Your task to perform on an android device: turn off notifications settings in the gmail app Image 0: 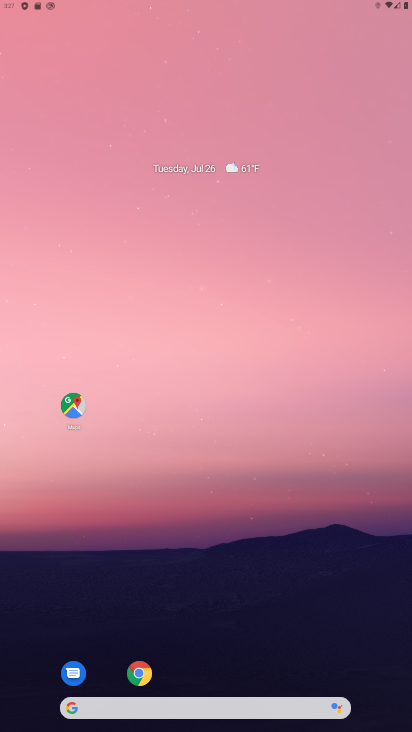
Step 0: press home button
Your task to perform on an android device: turn off notifications settings in the gmail app Image 1: 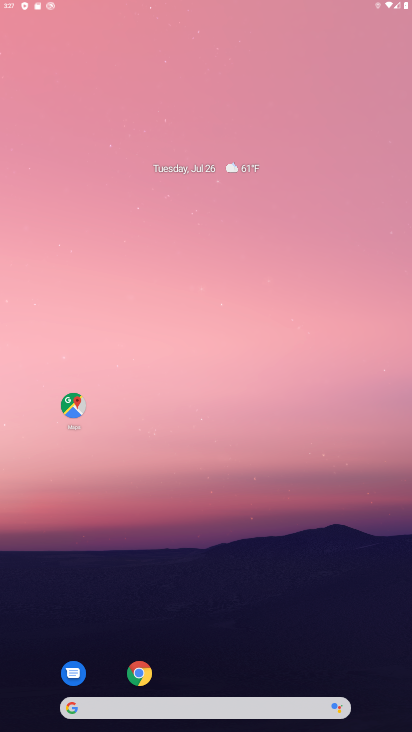
Step 1: drag from (213, 680) to (244, 0)
Your task to perform on an android device: turn off notifications settings in the gmail app Image 2: 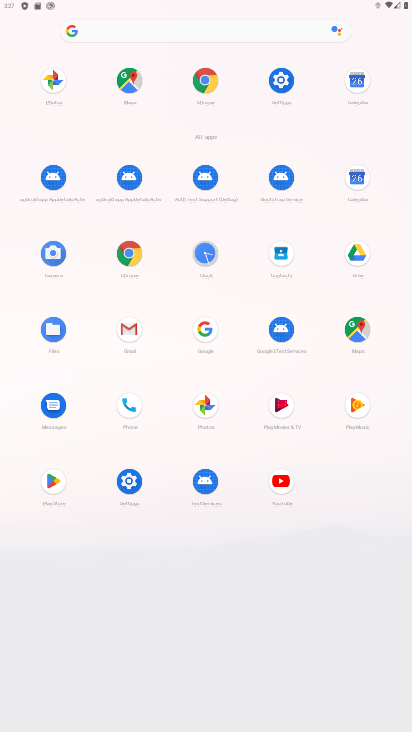
Step 2: click (127, 326)
Your task to perform on an android device: turn off notifications settings in the gmail app Image 3: 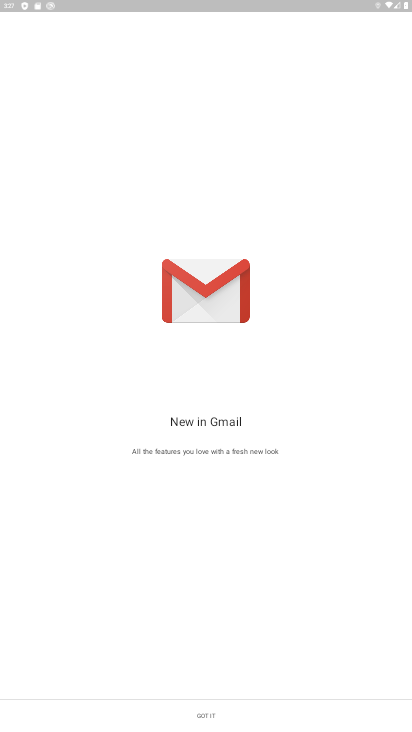
Step 3: click (208, 716)
Your task to perform on an android device: turn off notifications settings in the gmail app Image 4: 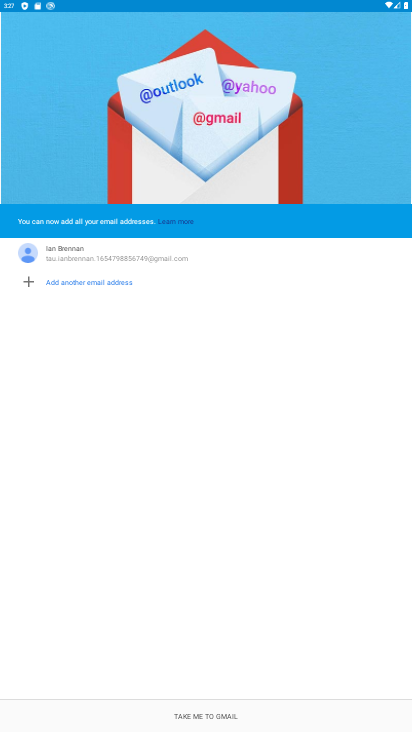
Step 4: click (208, 716)
Your task to perform on an android device: turn off notifications settings in the gmail app Image 5: 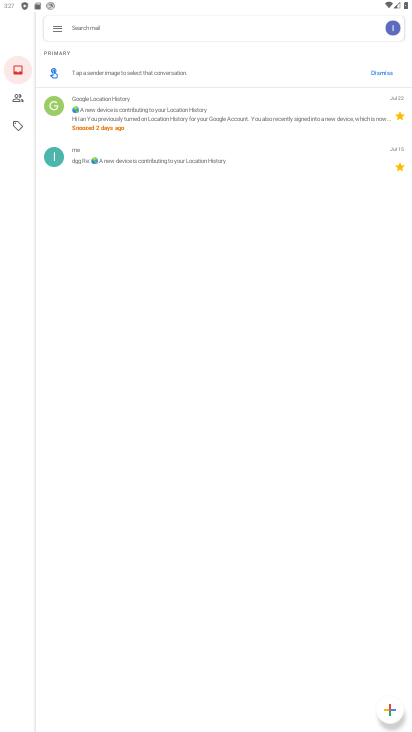
Step 5: click (58, 25)
Your task to perform on an android device: turn off notifications settings in the gmail app Image 6: 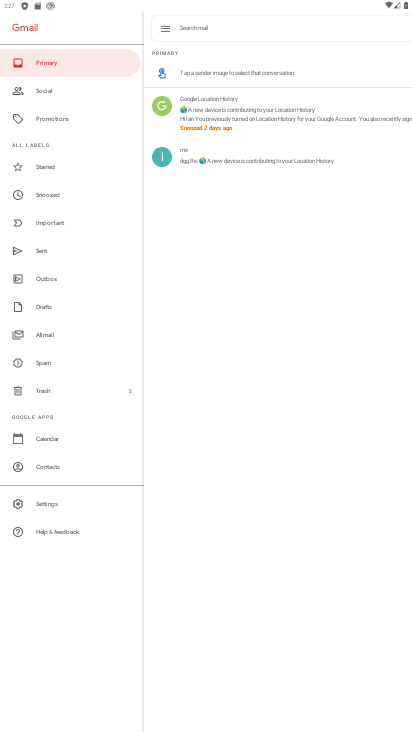
Step 6: click (63, 502)
Your task to perform on an android device: turn off notifications settings in the gmail app Image 7: 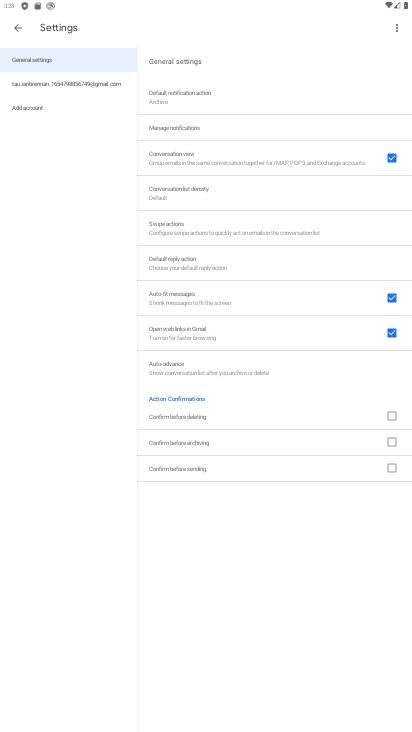
Step 7: click (195, 127)
Your task to perform on an android device: turn off notifications settings in the gmail app Image 8: 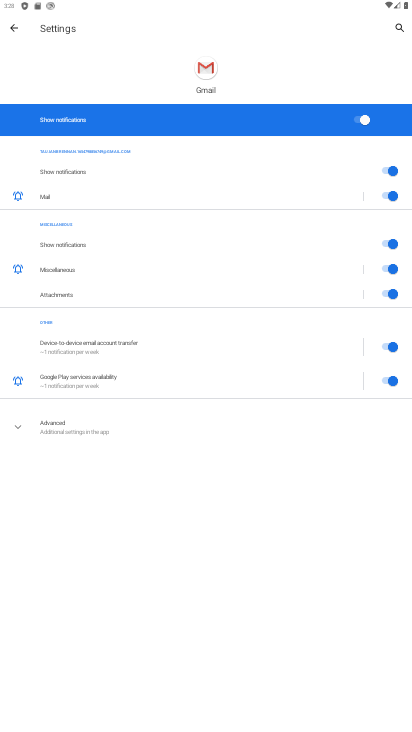
Step 8: click (358, 117)
Your task to perform on an android device: turn off notifications settings in the gmail app Image 9: 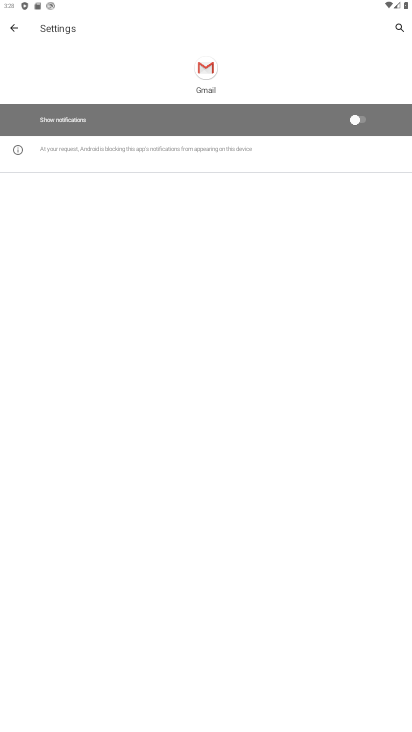
Step 9: task complete